Your task to perform on an android device: Search for runner rugs on Crate & Barrel Image 0: 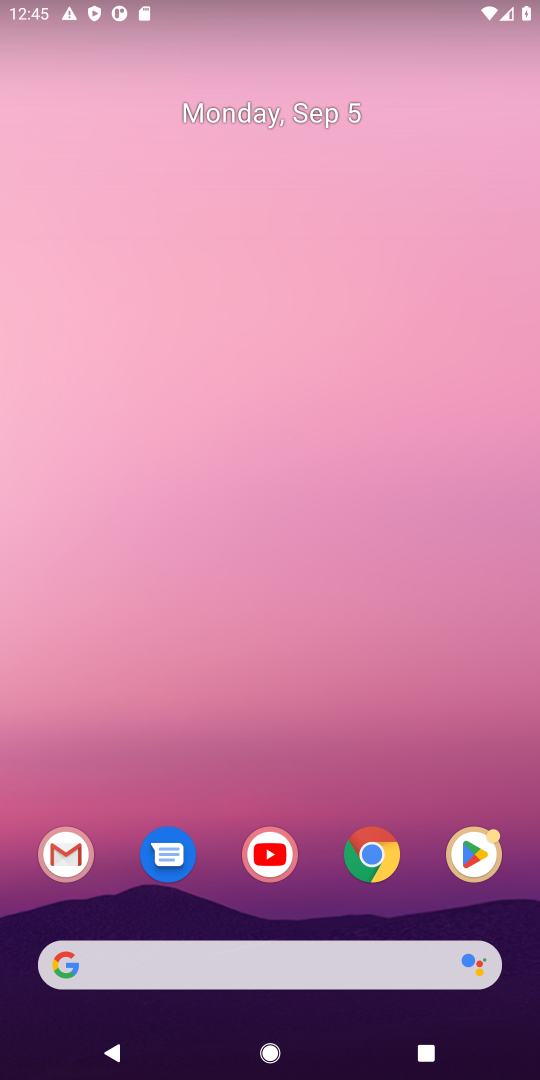
Step 0: press home button
Your task to perform on an android device: Search for runner rugs on Crate & Barrel Image 1: 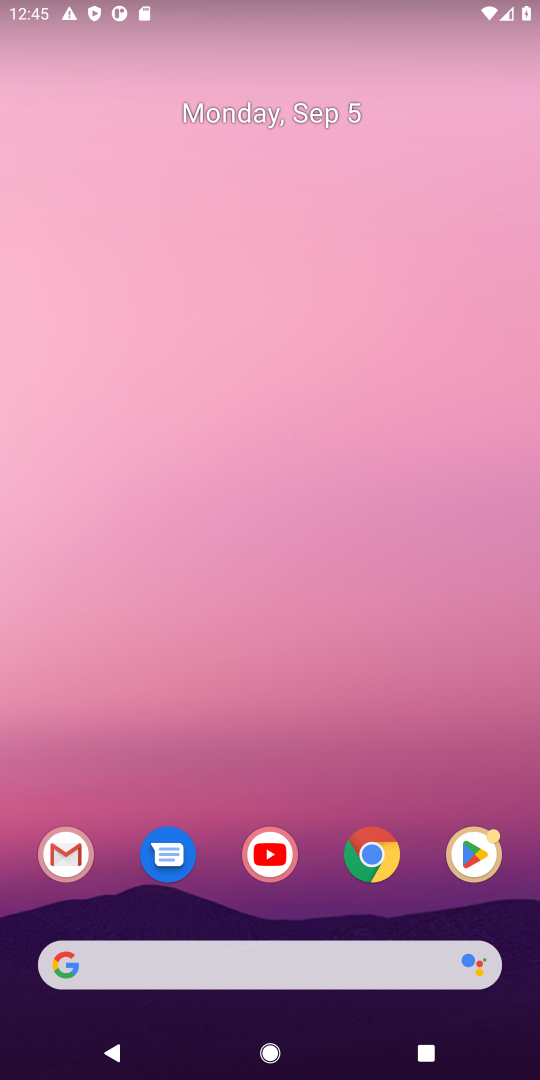
Step 1: click (299, 959)
Your task to perform on an android device: Search for runner rugs on Crate & Barrel Image 2: 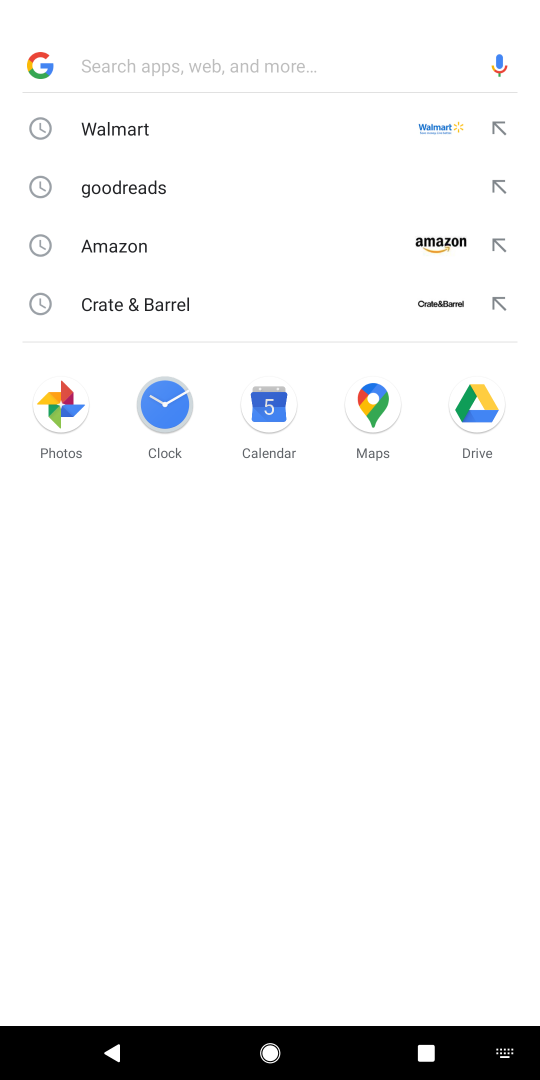
Step 2: type "crate barrel"
Your task to perform on an android device: Search for runner rugs on Crate & Barrel Image 3: 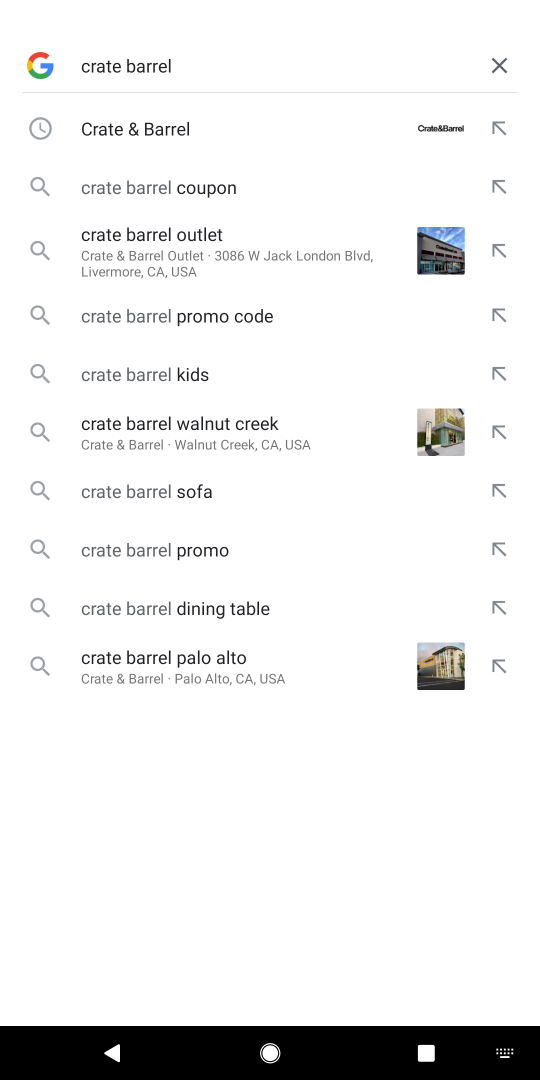
Step 3: press enter
Your task to perform on an android device: Search for runner rugs on Crate & Barrel Image 4: 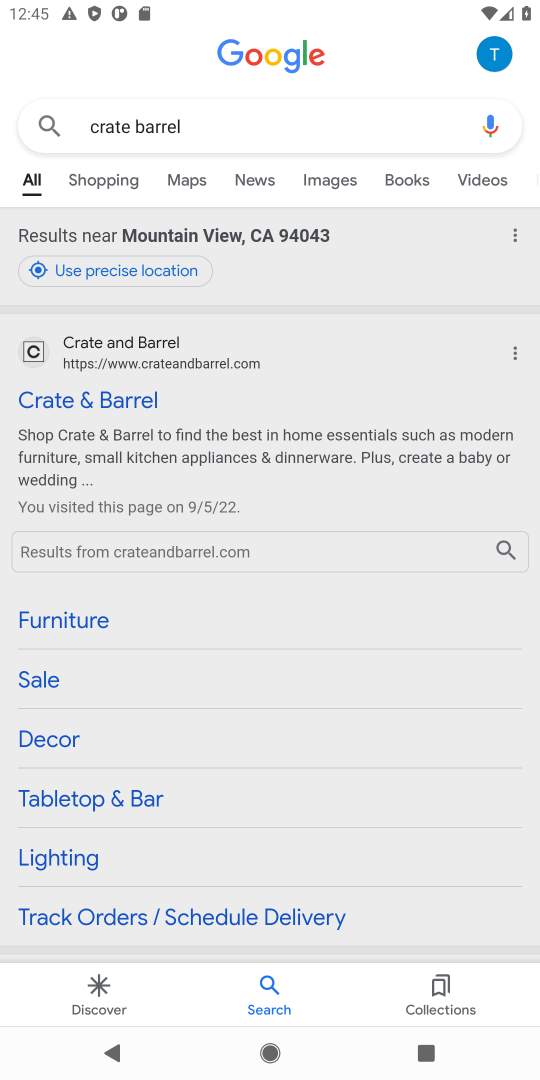
Step 4: click (120, 391)
Your task to perform on an android device: Search for runner rugs on Crate & Barrel Image 5: 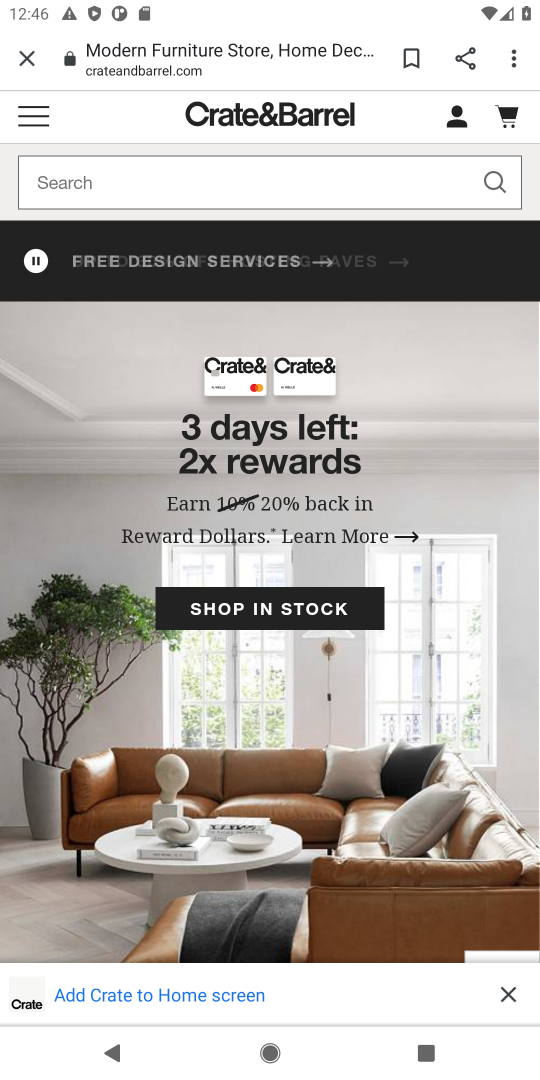
Step 5: click (89, 164)
Your task to perform on an android device: Search for runner rugs on Crate & Barrel Image 6: 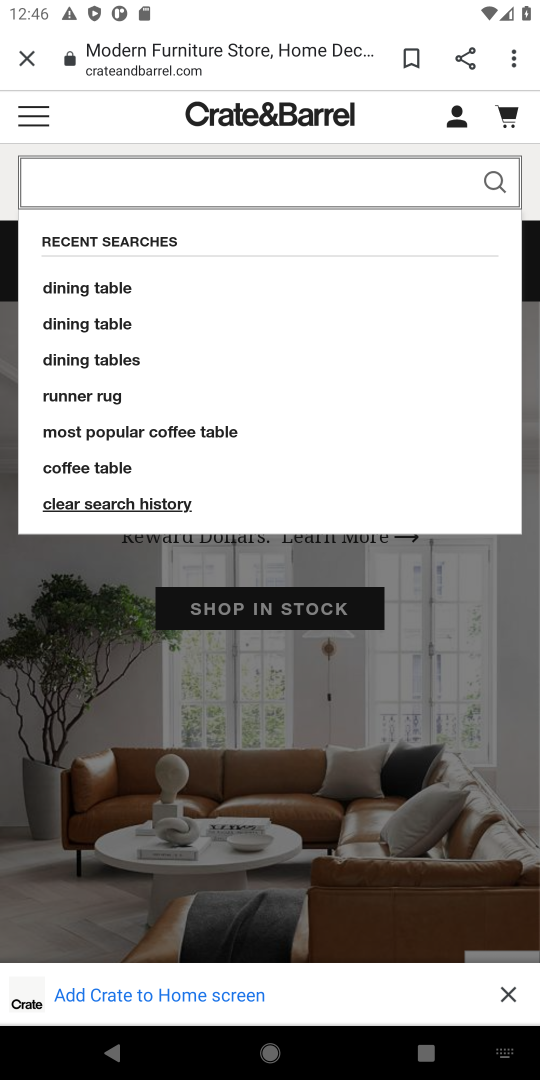
Step 6: press enter
Your task to perform on an android device: Search for runner rugs on Crate & Barrel Image 7: 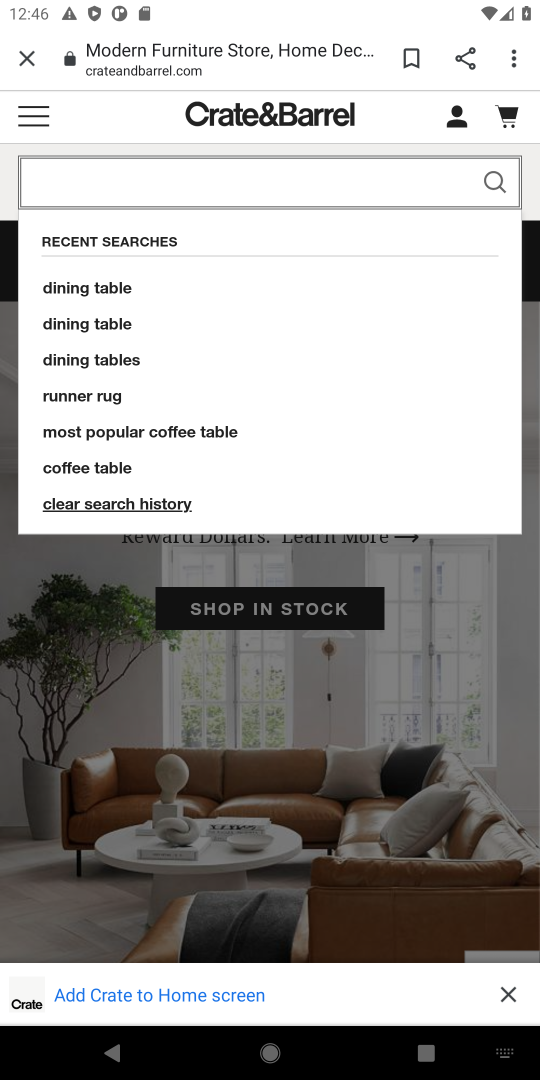
Step 7: type "runner rugs"
Your task to perform on an android device: Search for runner rugs on Crate & Barrel Image 8: 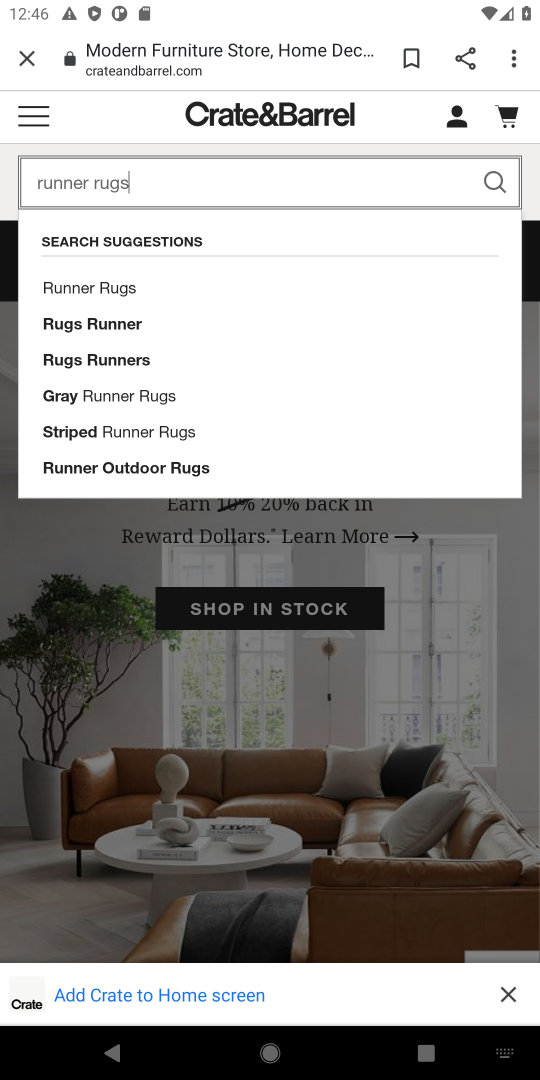
Step 8: click (128, 282)
Your task to perform on an android device: Search for runner rugs on Crate & Barrel Image 9: 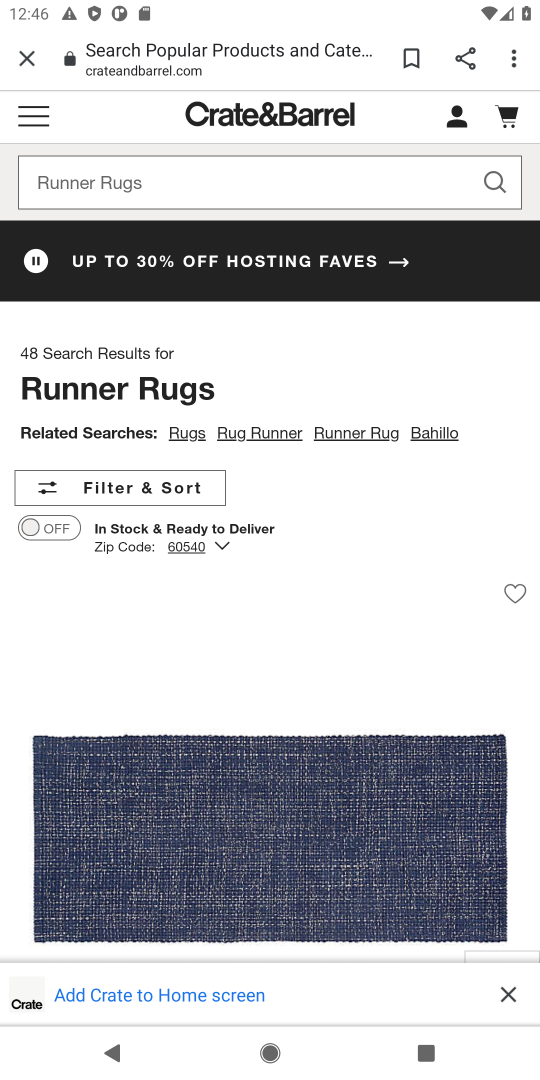
Step 9: task complete